Your task to perform on an android device: What is the recent news? Image 0: 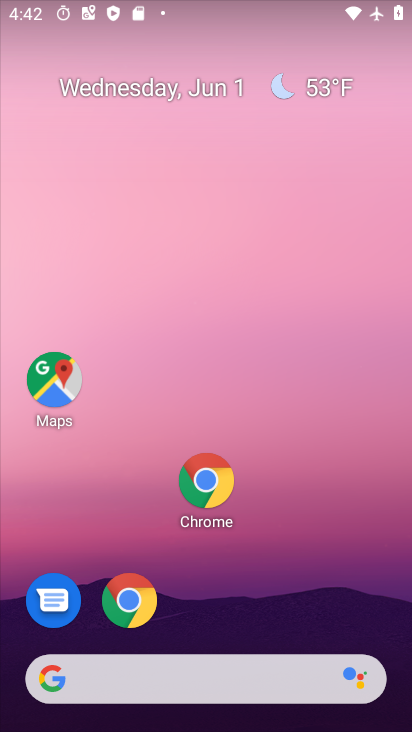
Step 0: drag from (315, 670) to (157, 93)
Your task to perform on an android device: What is the recent news? Image 1: 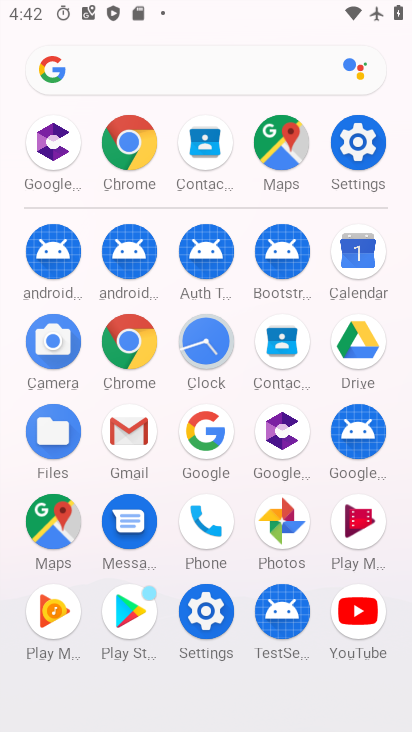
Step 1: task complete